Your task to perform on an android device: Open Youtube and go to the subscriptions tab Image 0: 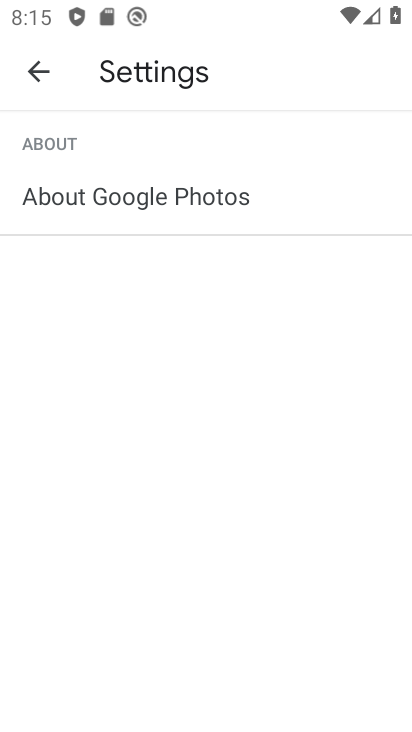
Step 0: press home button
Your task to perform on an android device: Open Youtube and go to the subscriptions tab Image 1: 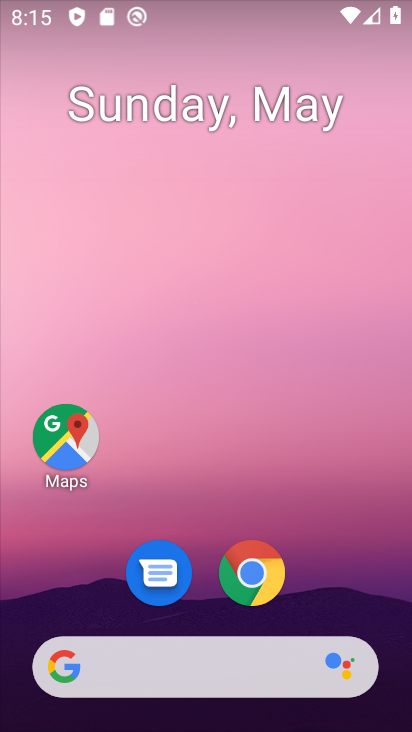
Step 1: drag from (342, 594) to (288, 106)
Your task to perform on an android device: Open Youtube and go to the subscriptions tab Image 2: 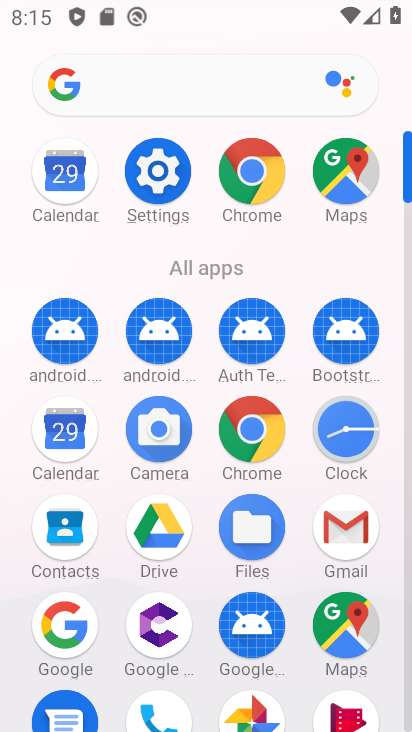
Step 2: click (407, 703)
Your task to perform on an android device: Open Youtube and go to the subscriptions tab Image 3: 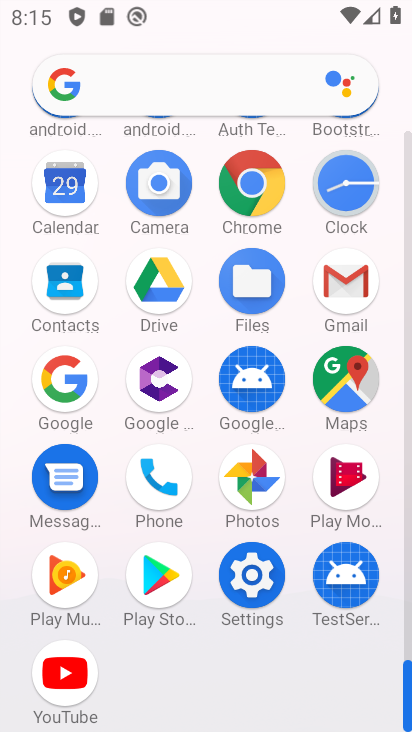
Step 3: click (80, 671)
Your task to perform on an android device: Open Youtube and go to the subscriptions tab Image 4: 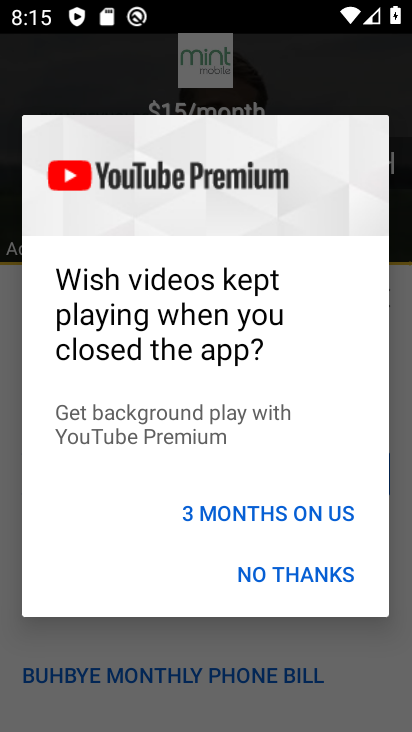
Step 4: click (301, 576)
Your task to perform on an android device: Open Youtube and go to the subscriptions tab Image 5: 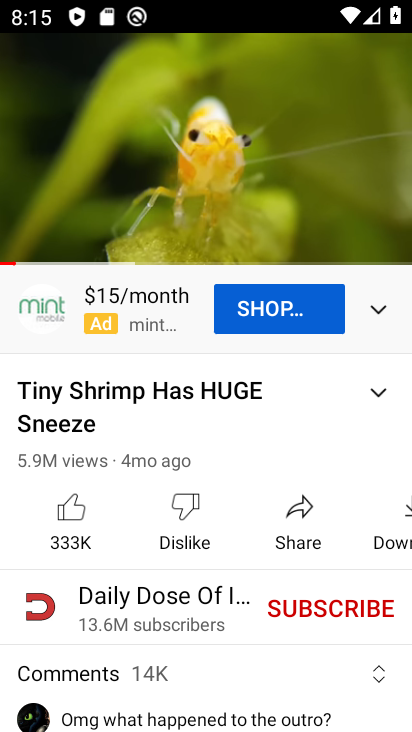
Step 5: press back button
Your task to perform on an android device: Open Youtube and go to the subscriptions tab Image 6: 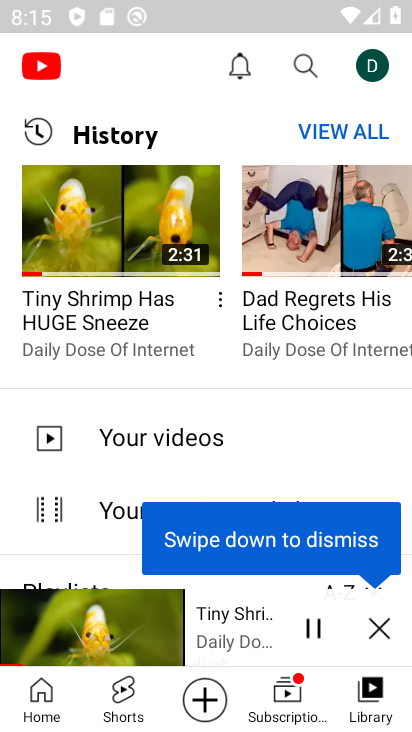
Step 6: click (296, 710)
Your task to perform on an android device: Open Youtube and go to the subscriptions tab Image 7: 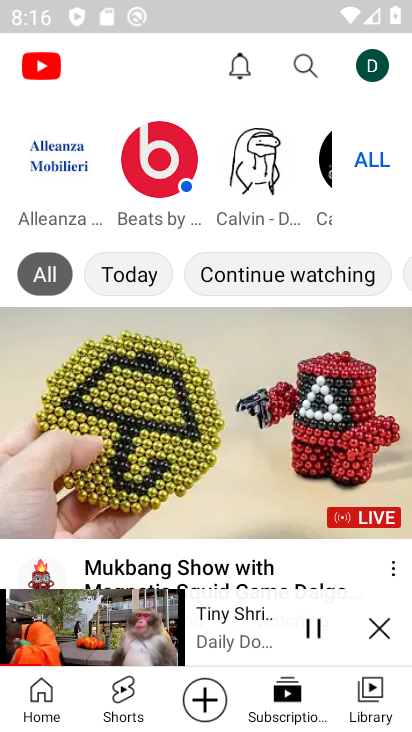
Step 7: task complete